Your task to perform on an android device: Add "dell xps" to the cart on walmart, then select checkout. Image 0: 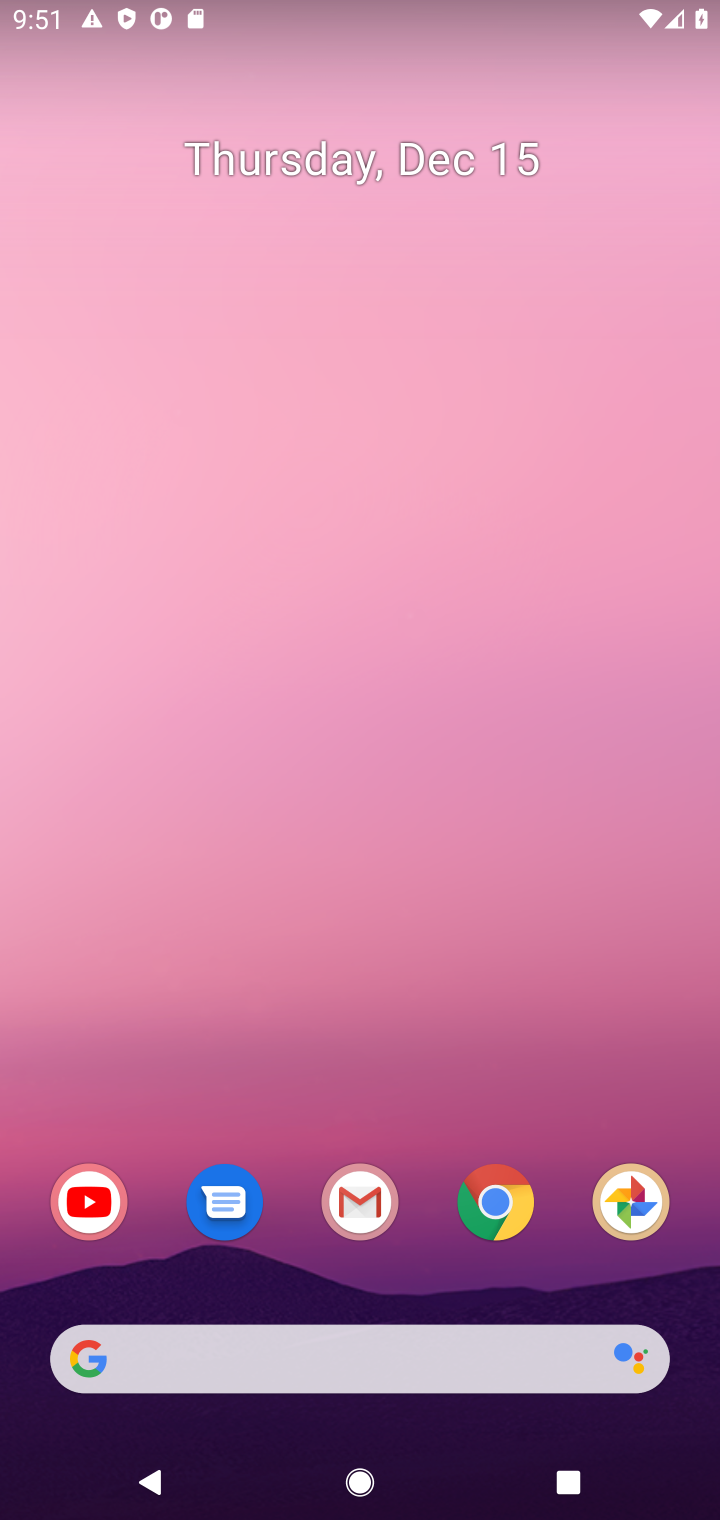
Step 0: click (501, 1214)
Your task to perform on an android device: Add "dell xps" to the cart on walmart, then select checkout. Image 1: 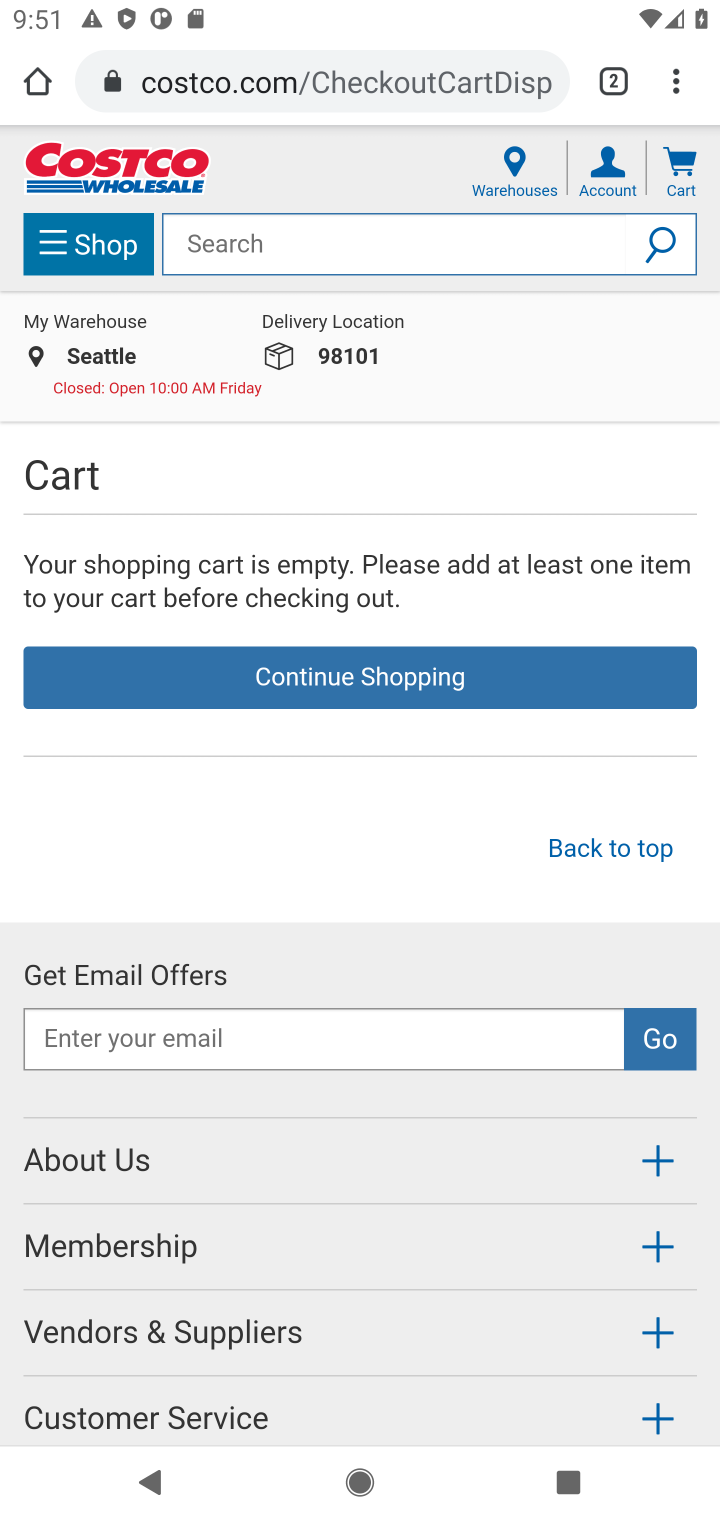
Step 1: click (297, 88)
Your task to perform on an android device: Add "dell xps" to the cart on walmart, then select checkout. Image 2: 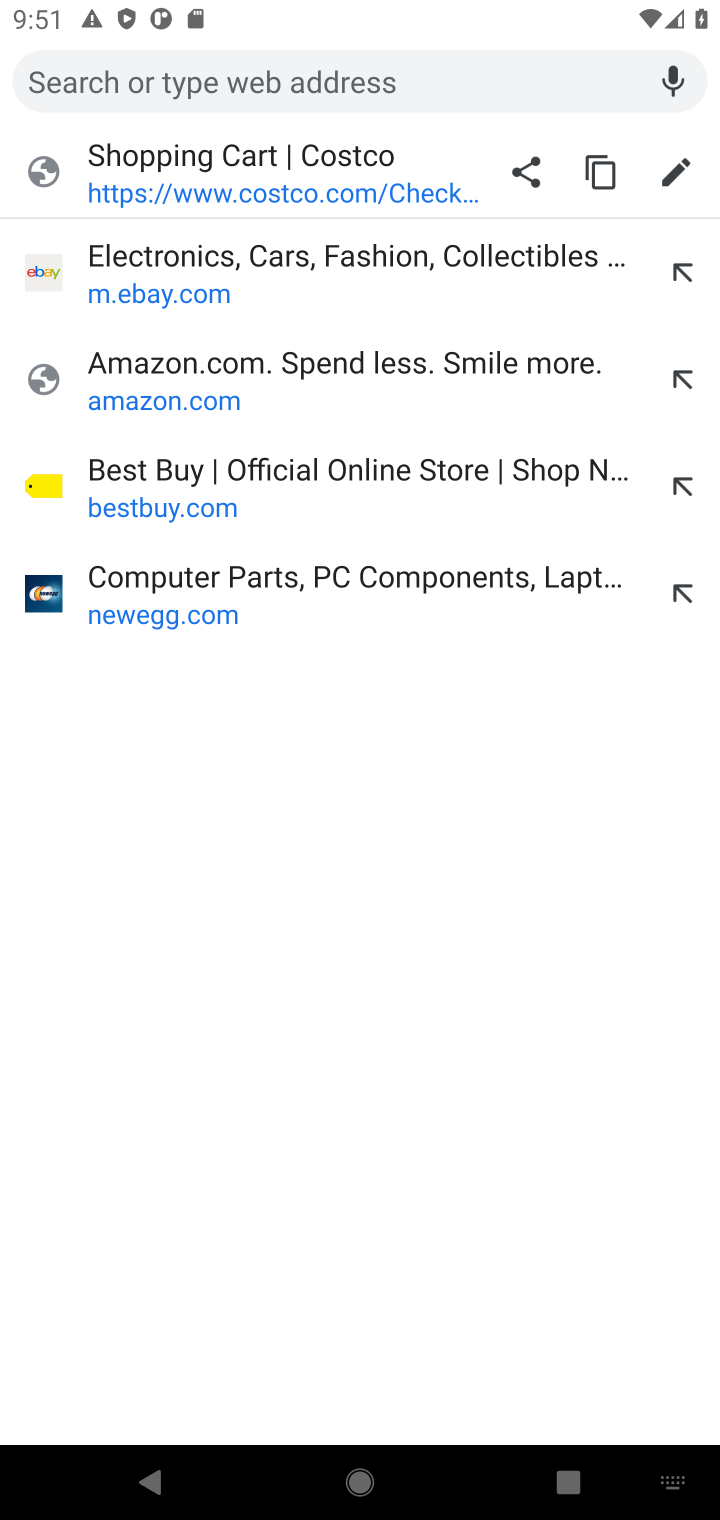
Step 2: type "walmart.com"
Your task to perform on an android device: Add "dell xps" to the cart on walmart, then select checkout. Image 3: 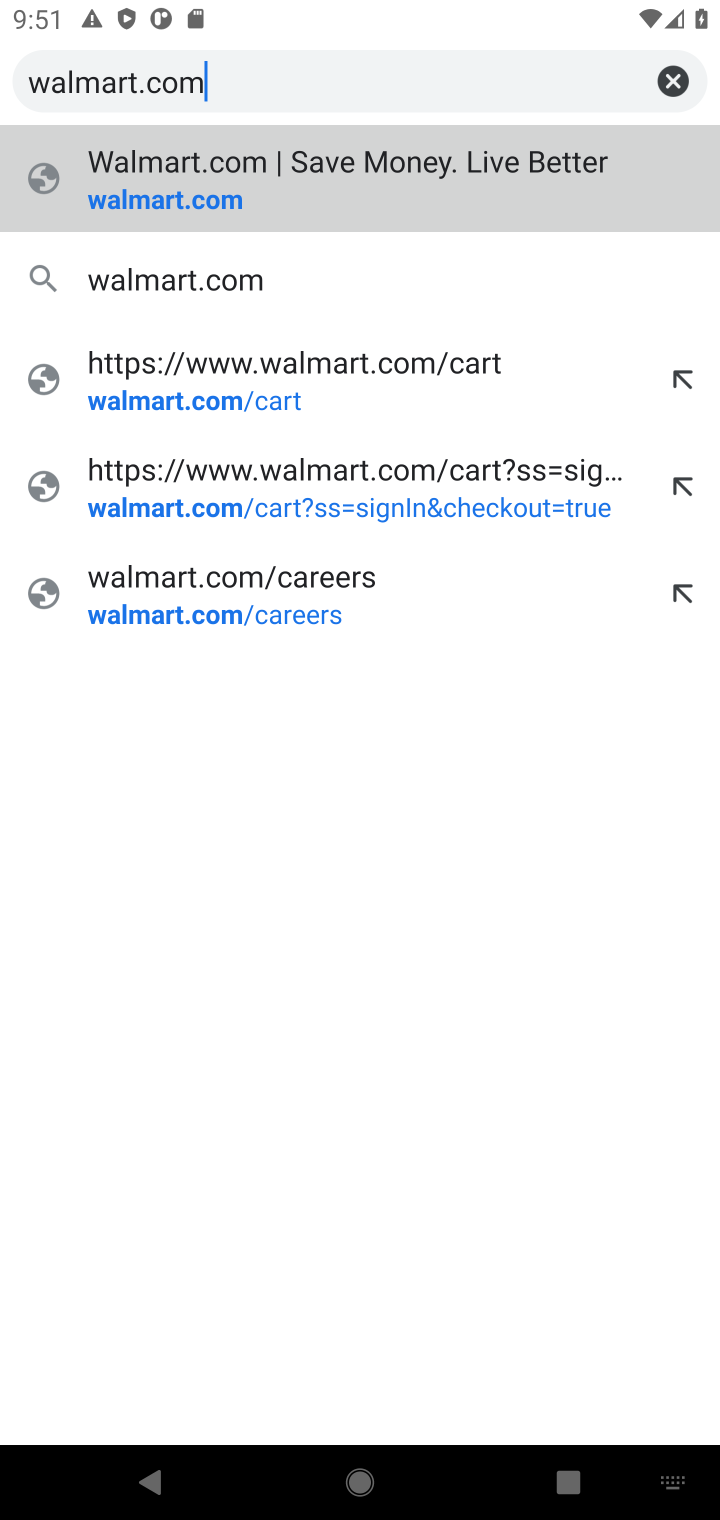
Step 3: click (133, 183)
Your task to perform on an android device: Add "dell xps" to the cart on walmart, then select checkout. Image 4: 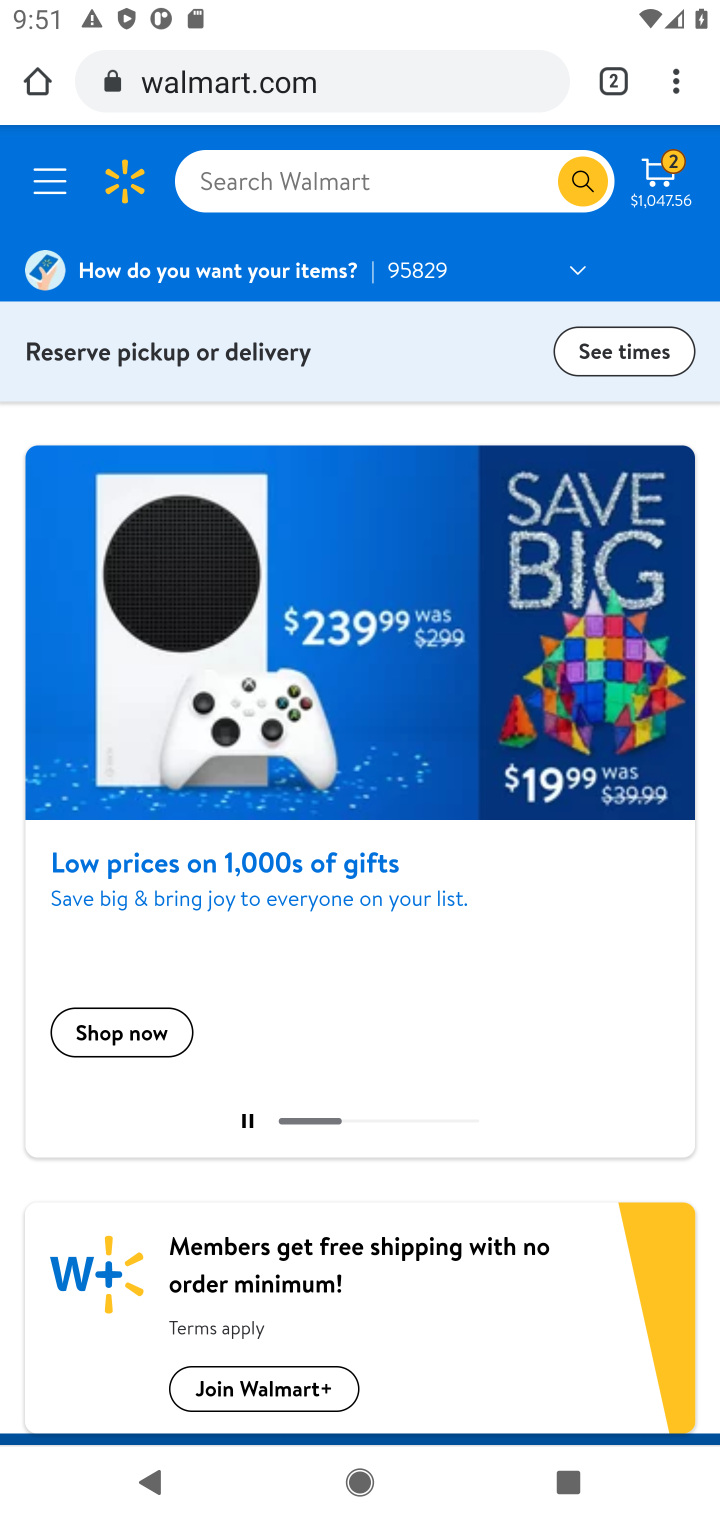
Step 4: click (245, 190)
Your task to perform on an android device: Add "dell xps" to the cart on walmart, then select checkout. Image 5: 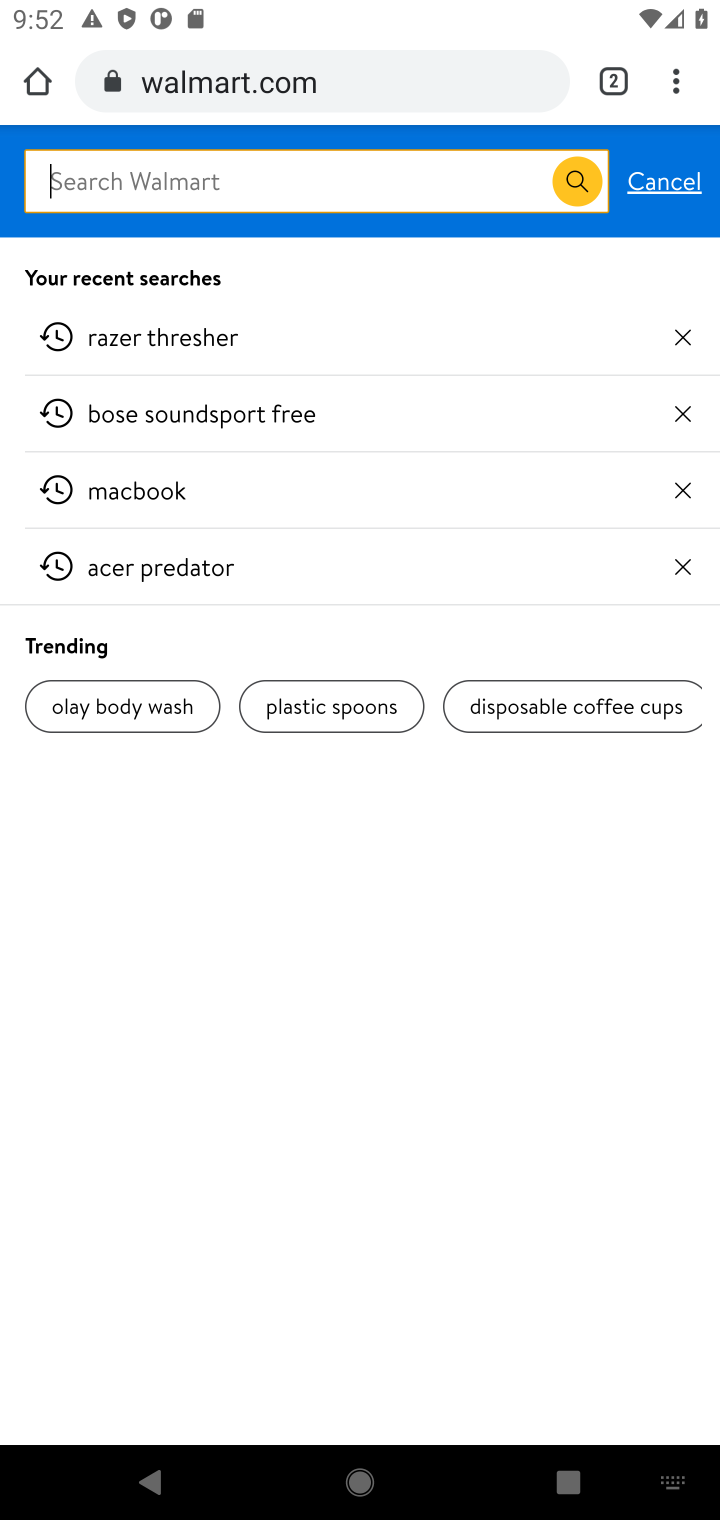
Step 5: type "dell xps"
Your task to perform on an android device: Add "dell xps" to the cart on walmart, then select checkout. Image 6: 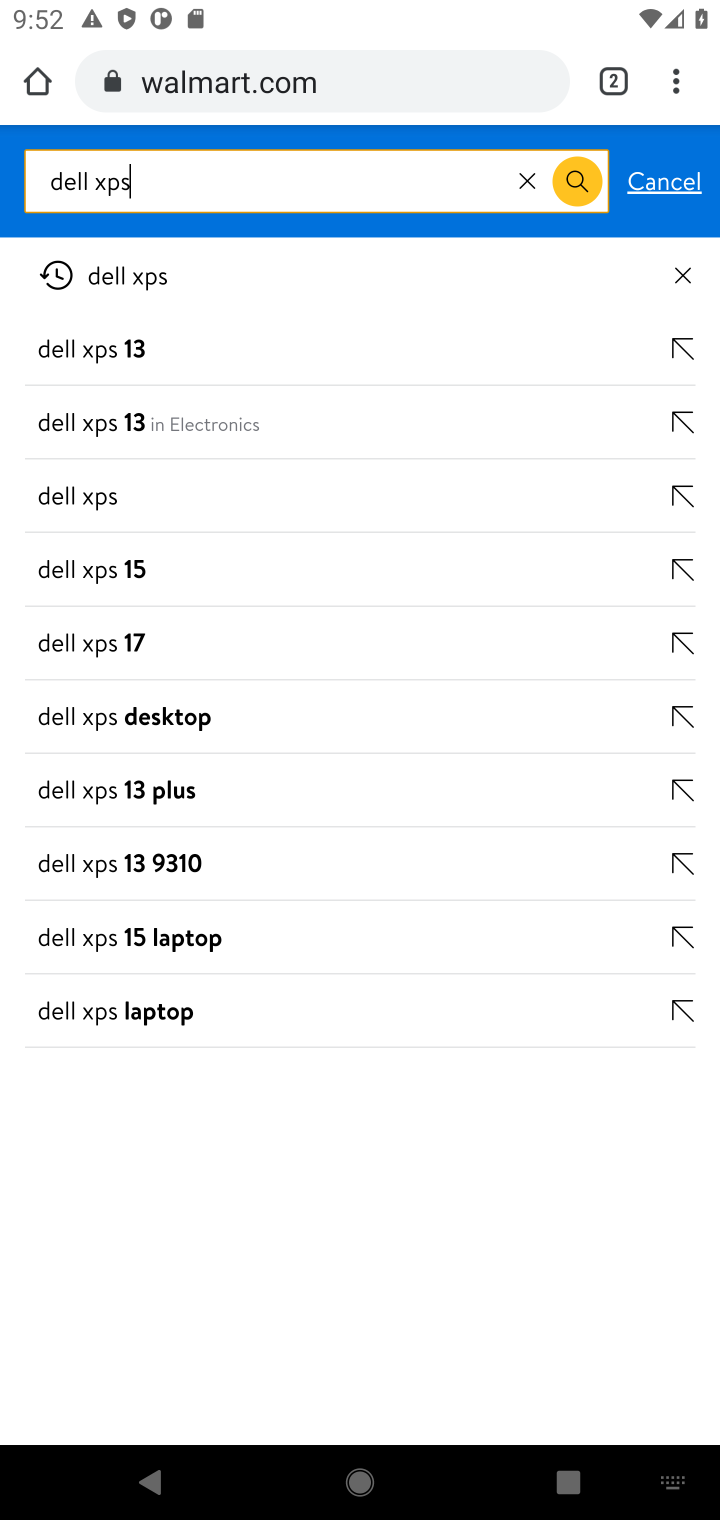
Step 6: click (122, 266)
Your task to perform on an android device: Add "dell xps" to the cart on walmart, then select checkout. Image 7: 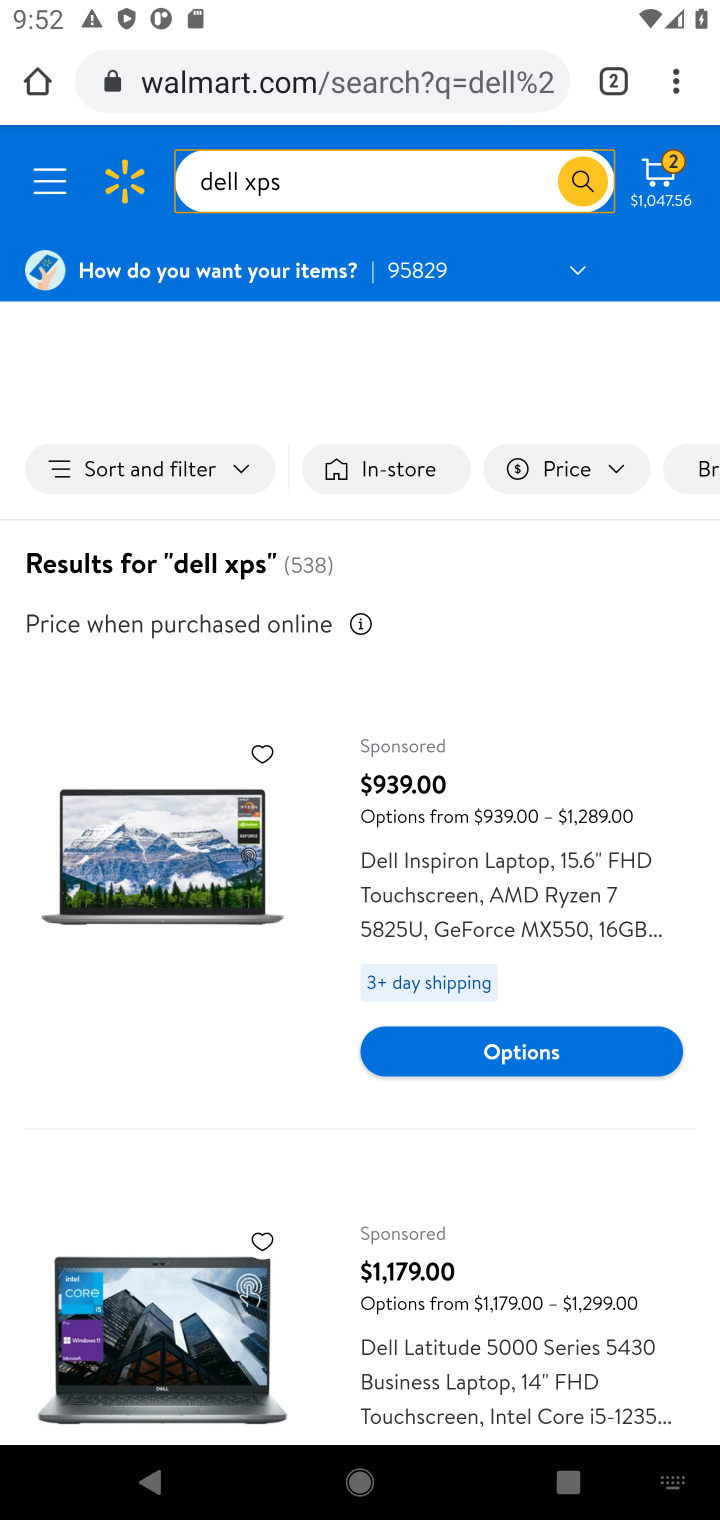
Step 7: drag from (206, 981) to (151, 500)
Your task to perform on an android device: Add "dell xps" to the cart on walmart, then select checkout. Image 8: 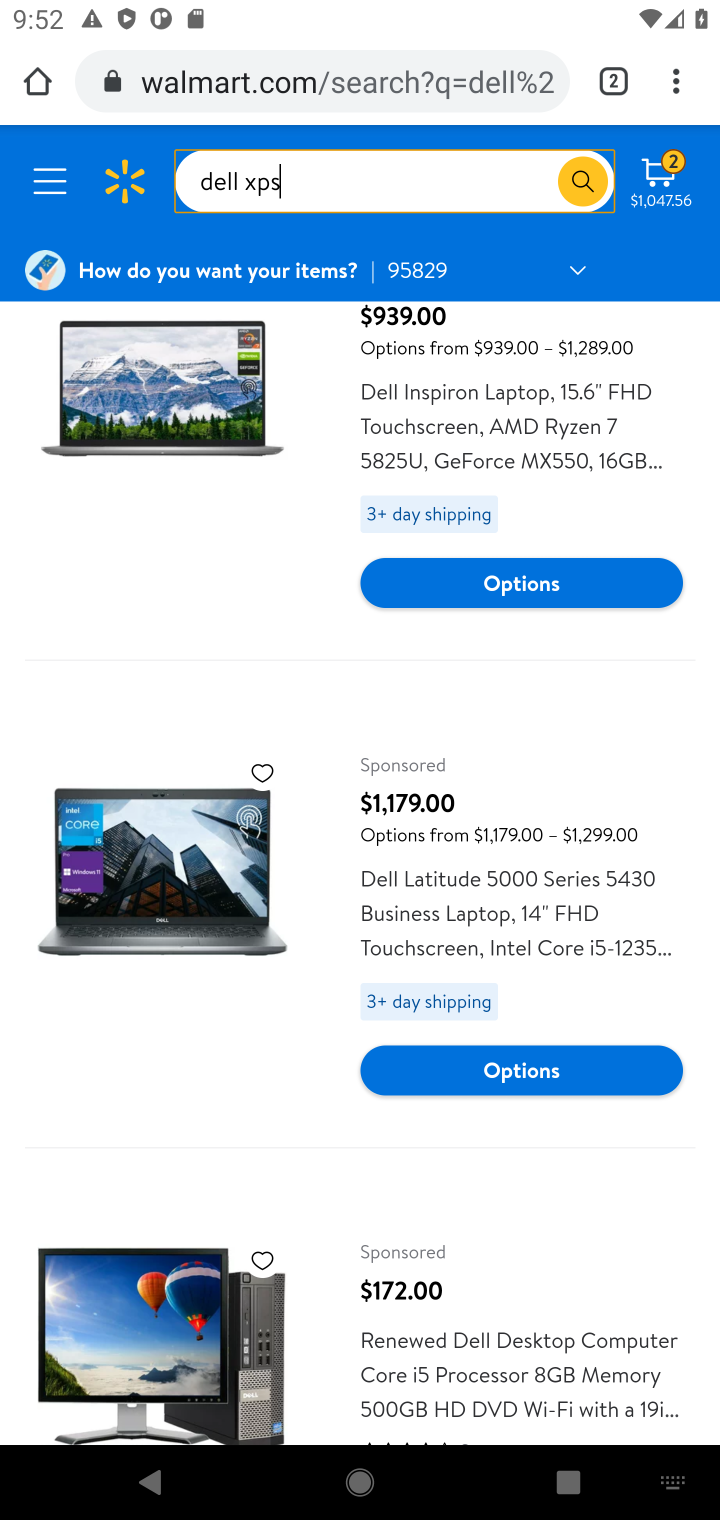
Step 8: drag from (168, 1002) to (143, 522)
Your task to perform on an android device: Add "dell xps" to the cart on walmart, then select checkout. Image 9: 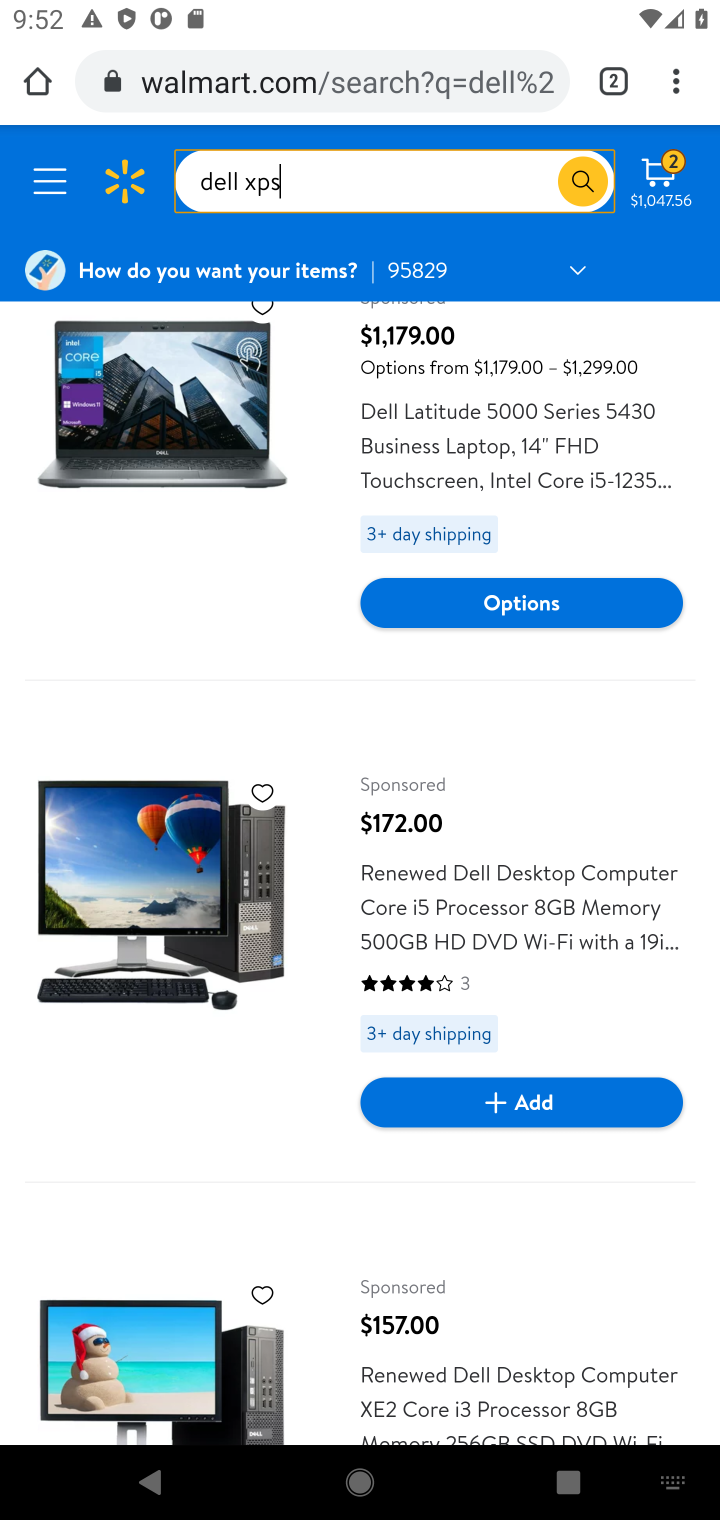
Step 9: drag from (175, 1112) to (151, 663)
Your task to perform on an android device: Add "dell xps" to the cart on walmart, then select checkout. Image 10: 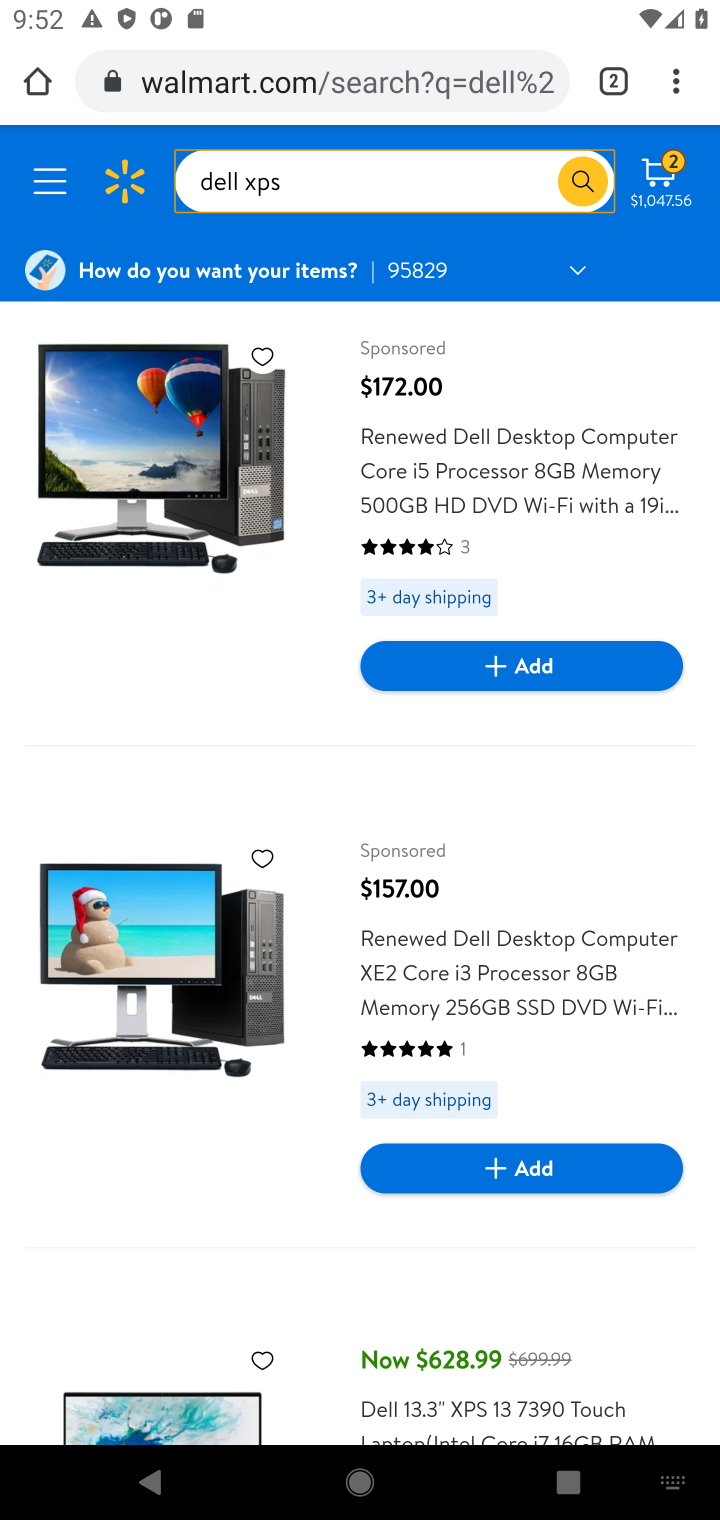
Step 10: drag from (230, 958) to (265, 486)
Your task to perform on an android device: Add "dell xps" to the cart on walmart, then select checkout. Image 11: 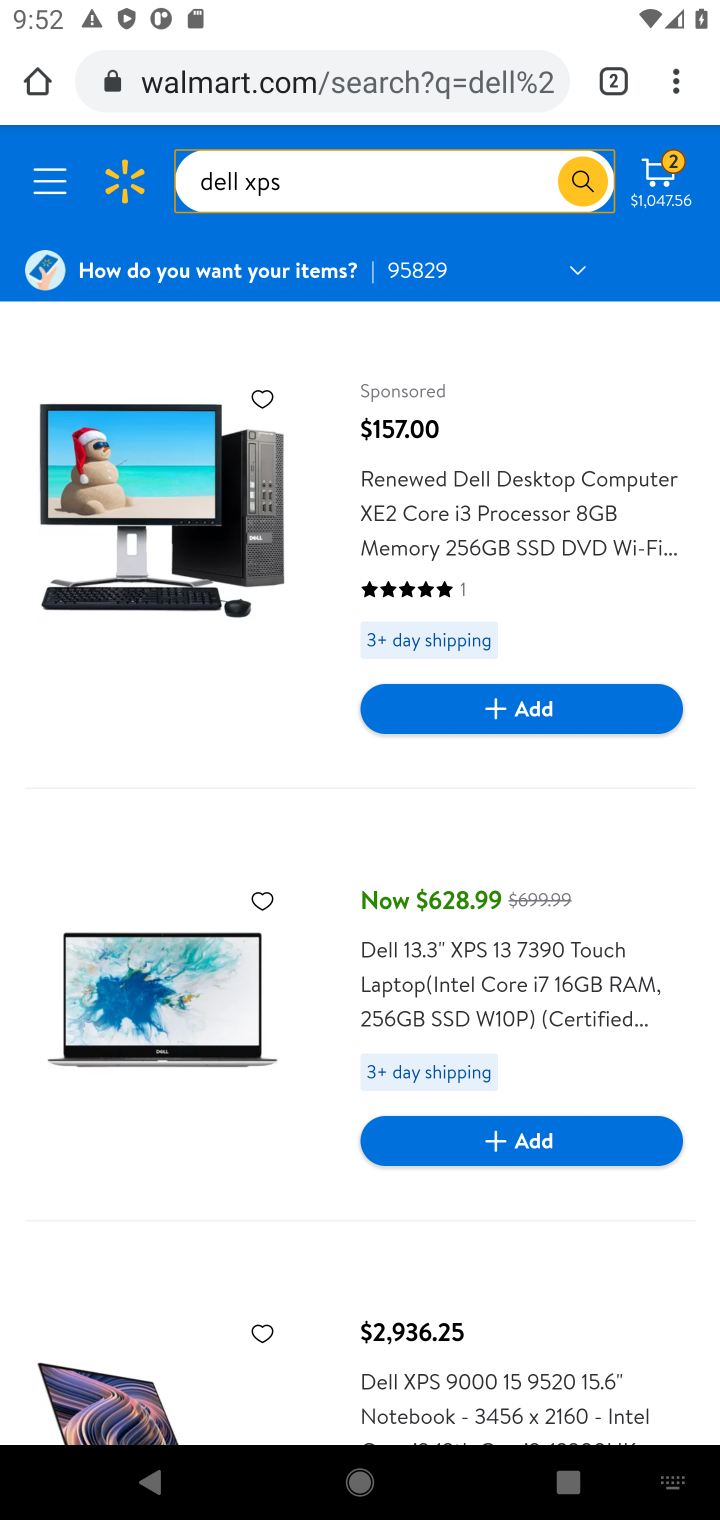
Step 11: click (505, 1151)
Your task to perform on an android device: Add "dell xps" to the cart on walmart, then select checkout. Image 12: 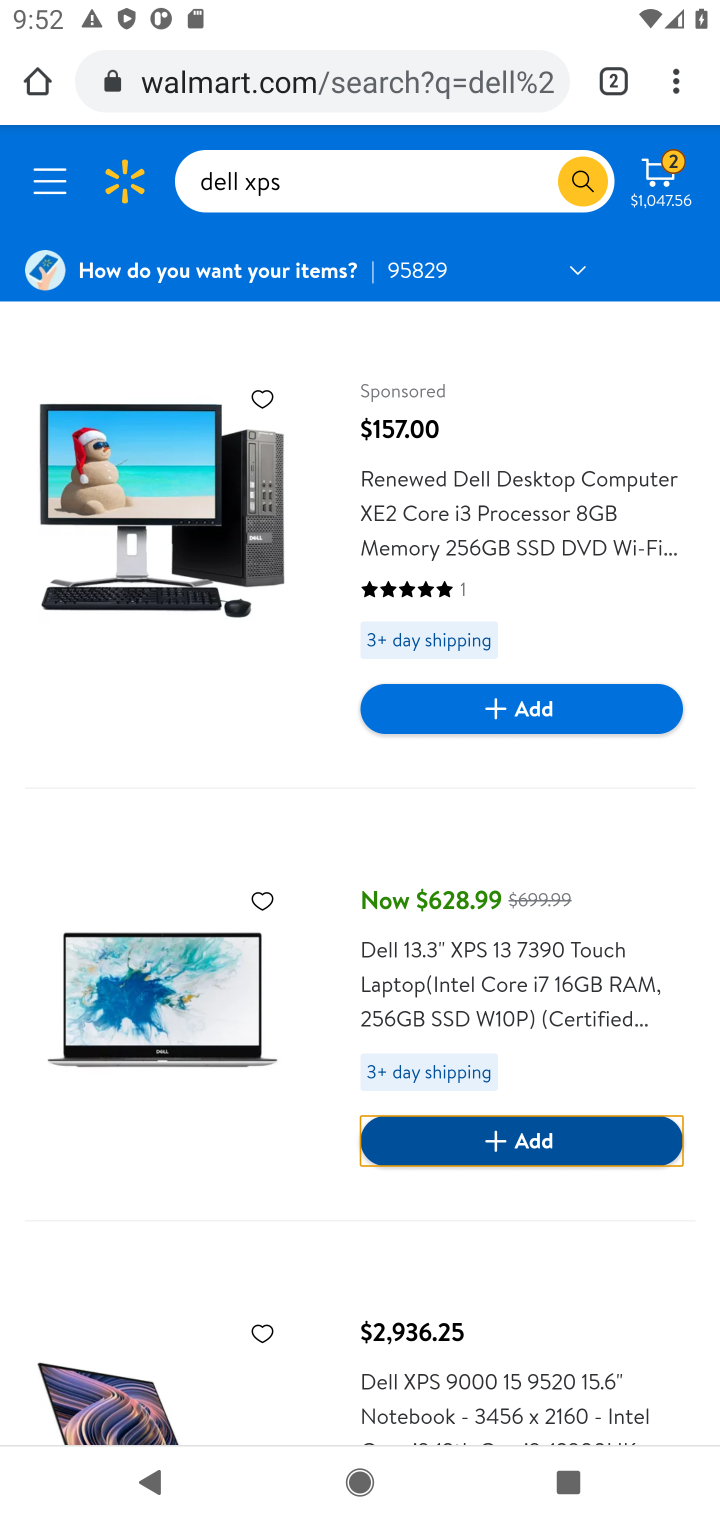
Step 12: click (517, 1151)
Your task to perform on an android device: Add "dell xps" to the cart on walmart, then select checkout. Image 13: 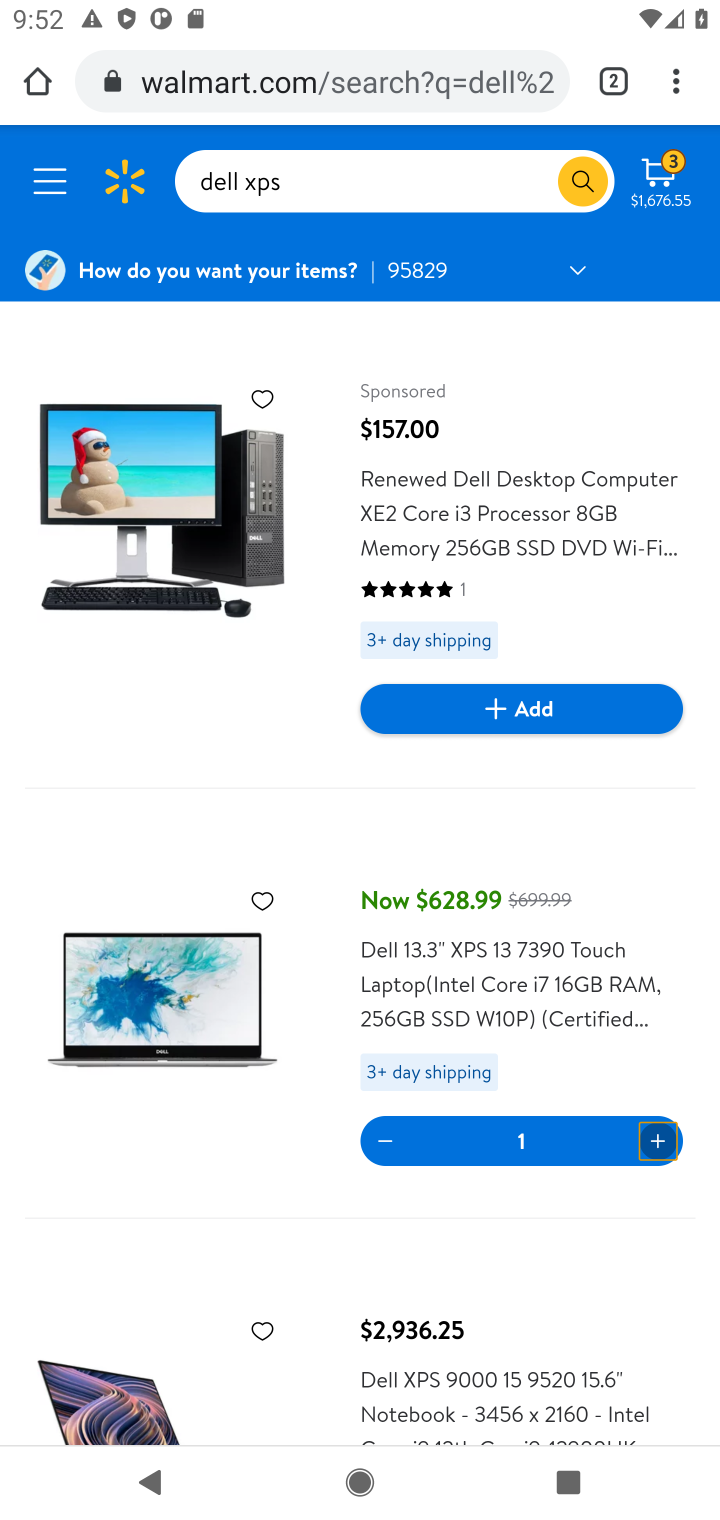
Step 13: click (645, 194)
Your task to perform on an android device: Add "dell xps" to the cart on walmart, then select checkout. Image 14: 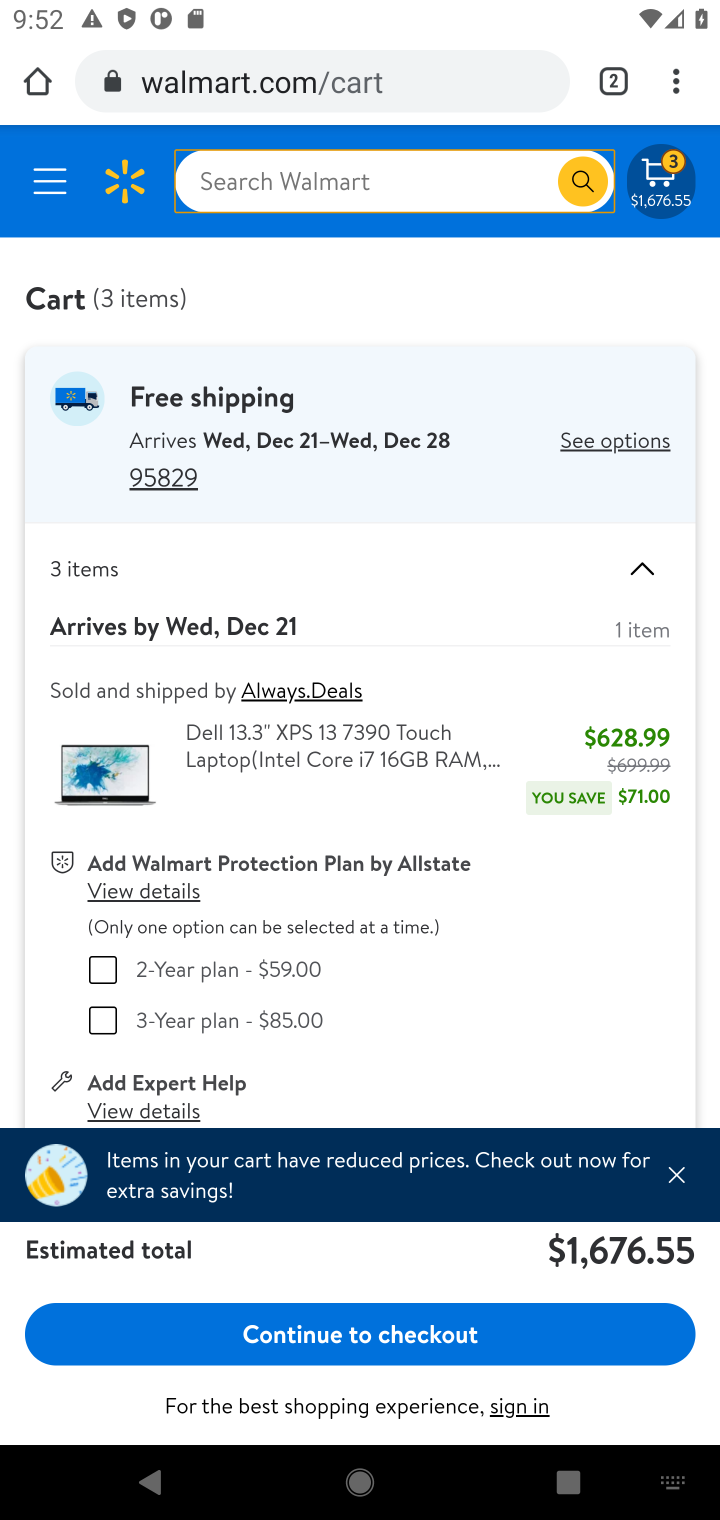
Step 14: click (328, 1338)
Your task to perform on an android device: Add "dell xps" to the cart on walmart, then select checkout. Image 15: 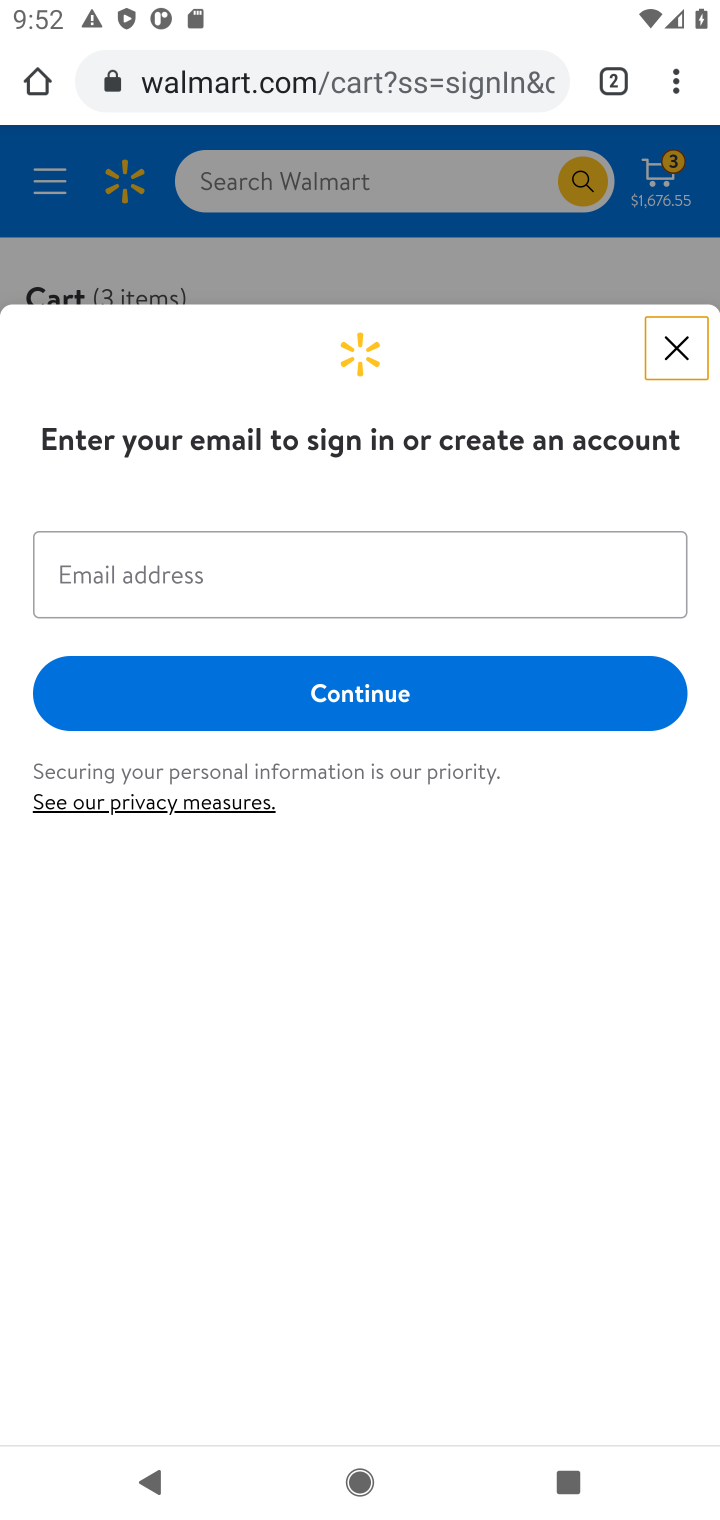
Step 15: task complete